Your task to perform on an android device: turn off smart reply in the gmail app Image 0: 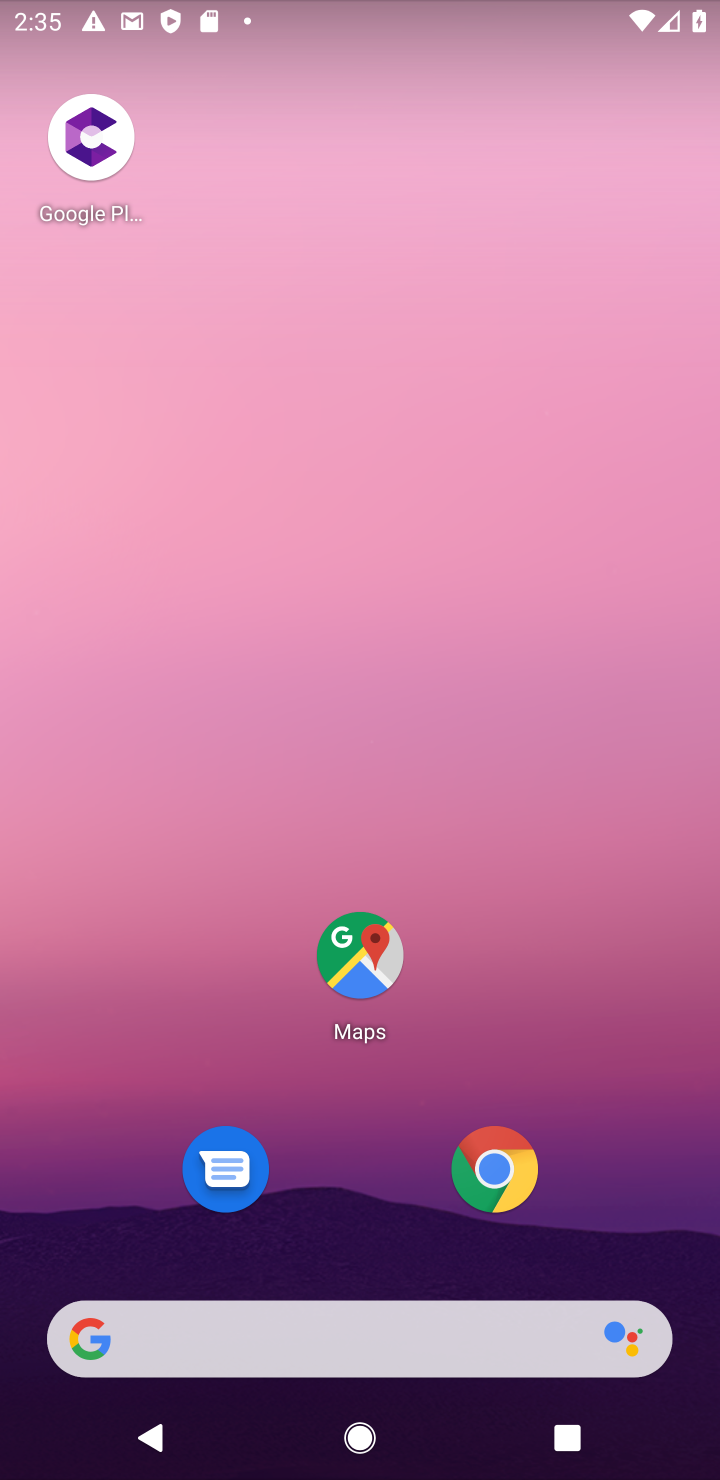
Step 0: drag from (416, 1232) to (524, 297)
Your task to perform on an android device: turn off smart reply in the gmail app Image 1: 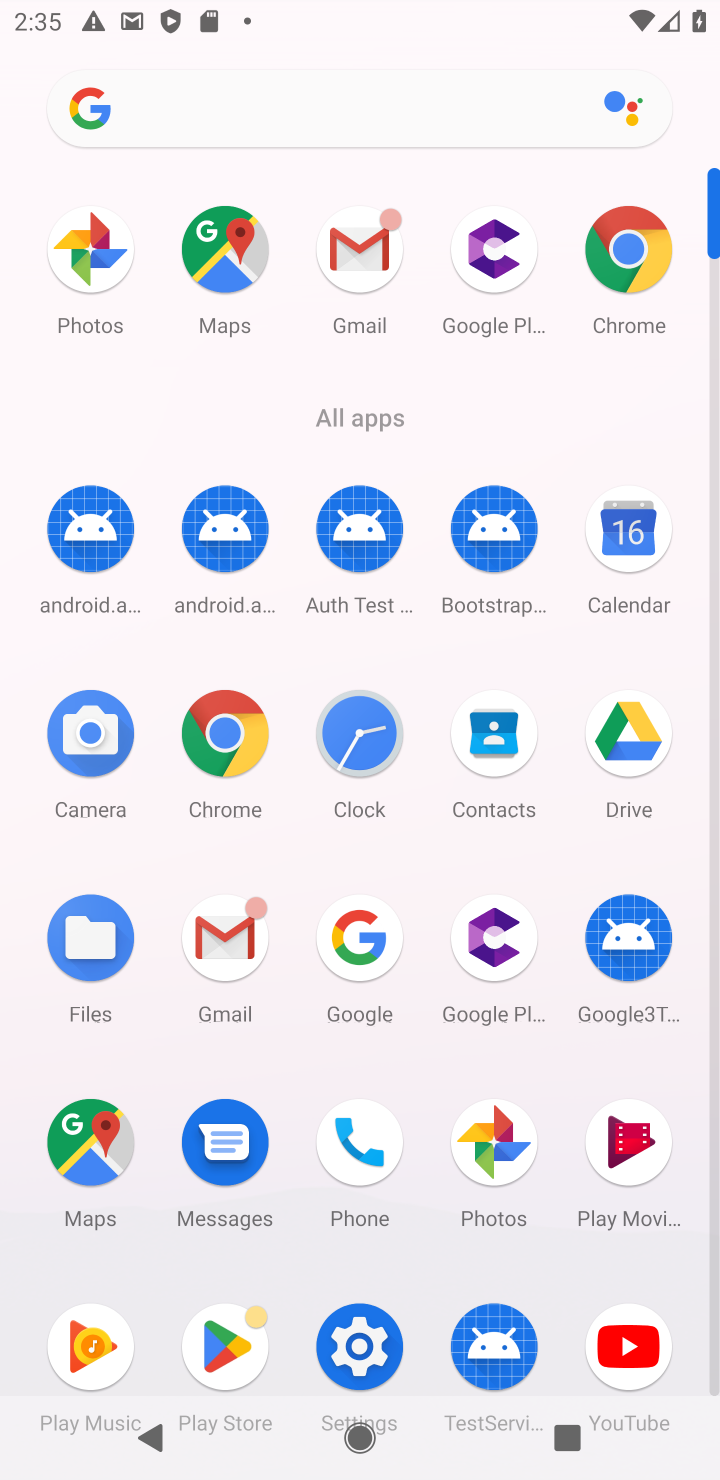
Step 1: click (371, 253)
Your task to perform on an android device: turn off smart reply in the gmail app Image 2: 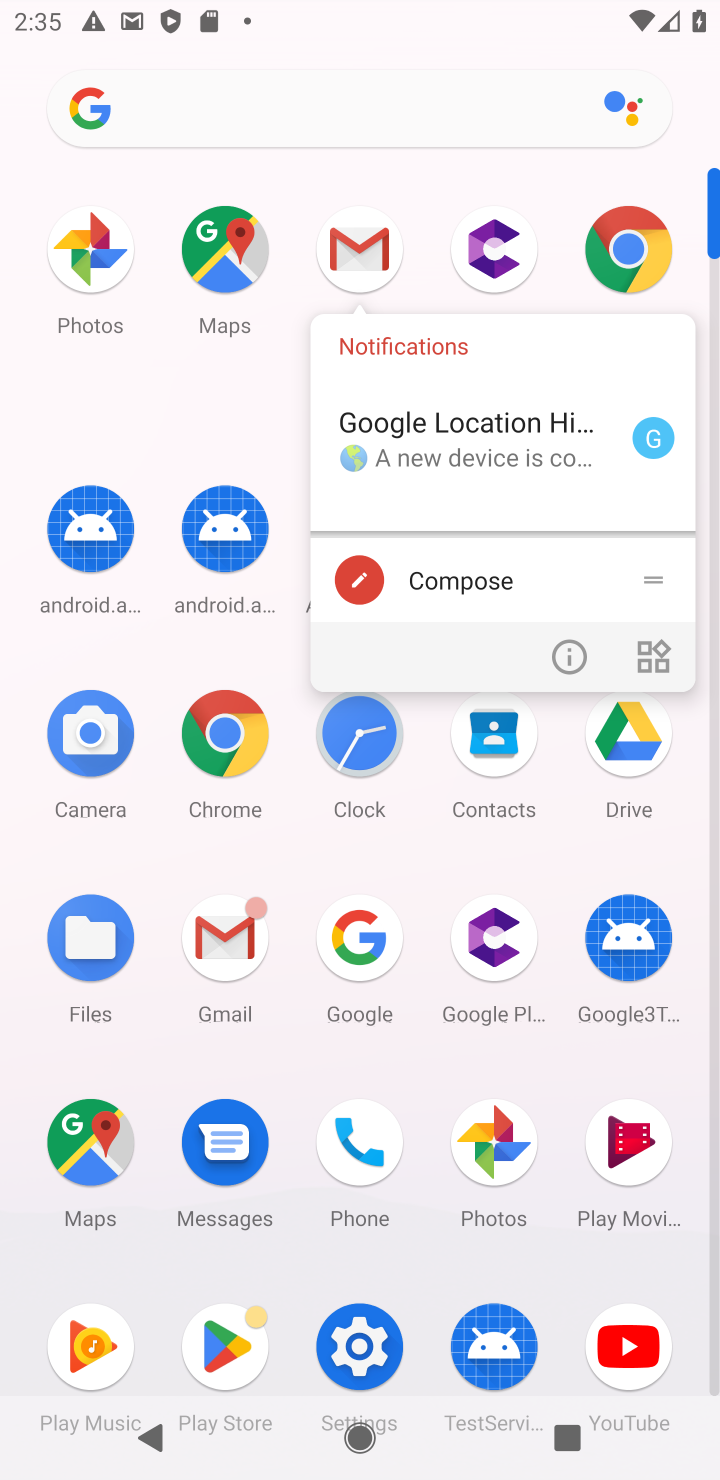
Step 2: click (371, 253)
Your task to perform on an android device: turn off smart reply in the gmail app Image 3: 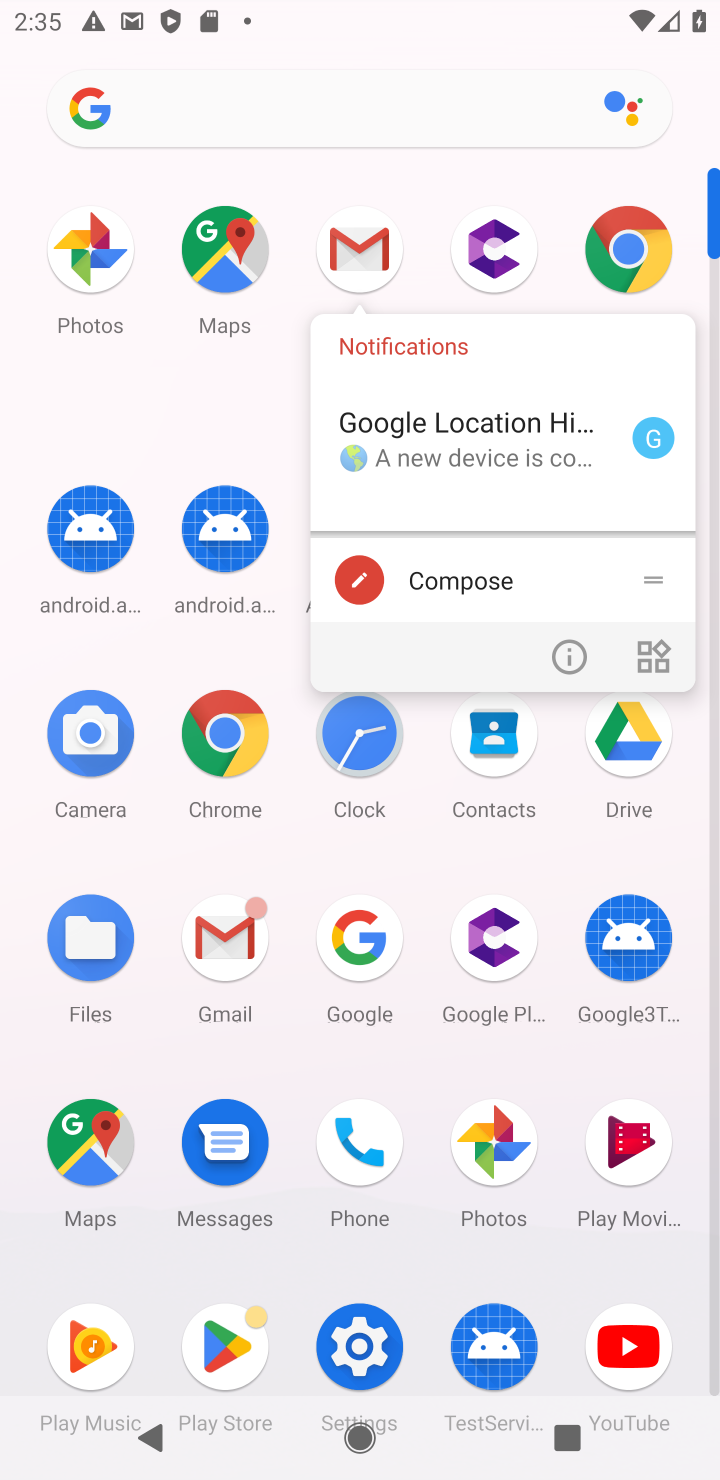
Step 3: click (371, 252)
Your task to perform on an android device: turn off smart reply in the gmail app Image 4: 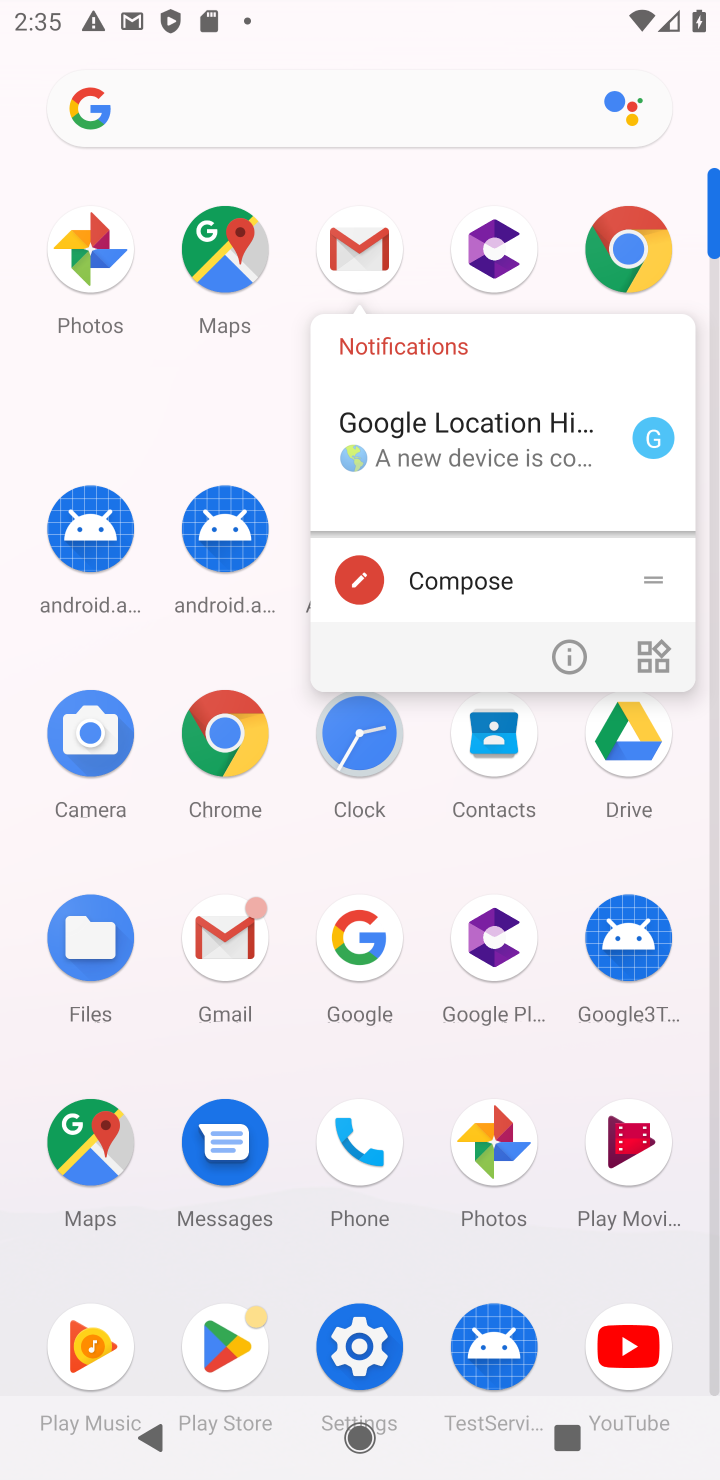
Step 4: click (371, 253)
Your task to perform on an android device: turn off smart reply in the gmail app Image 5: 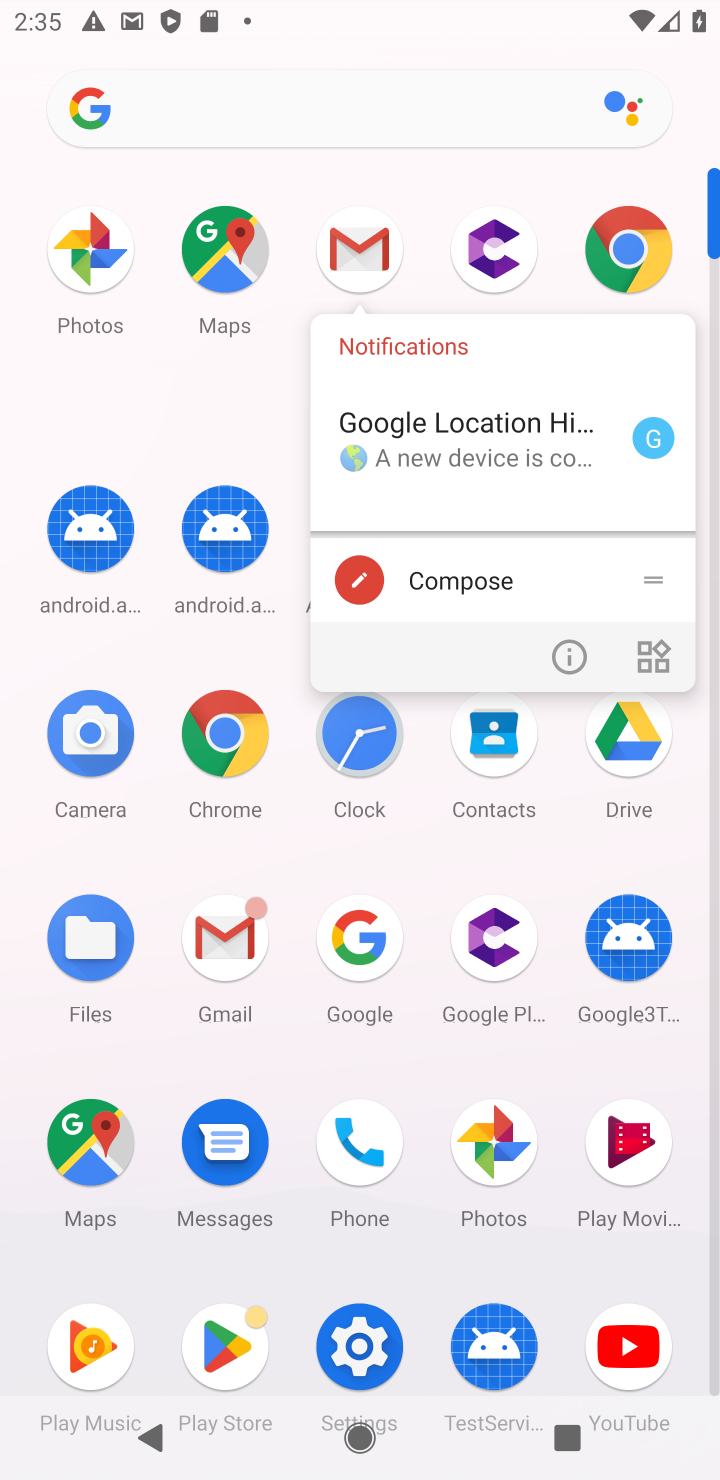
Step 5: click (360, 252)
Your task to perform on an android device: turn off smart reply in the gmail app Image 6: 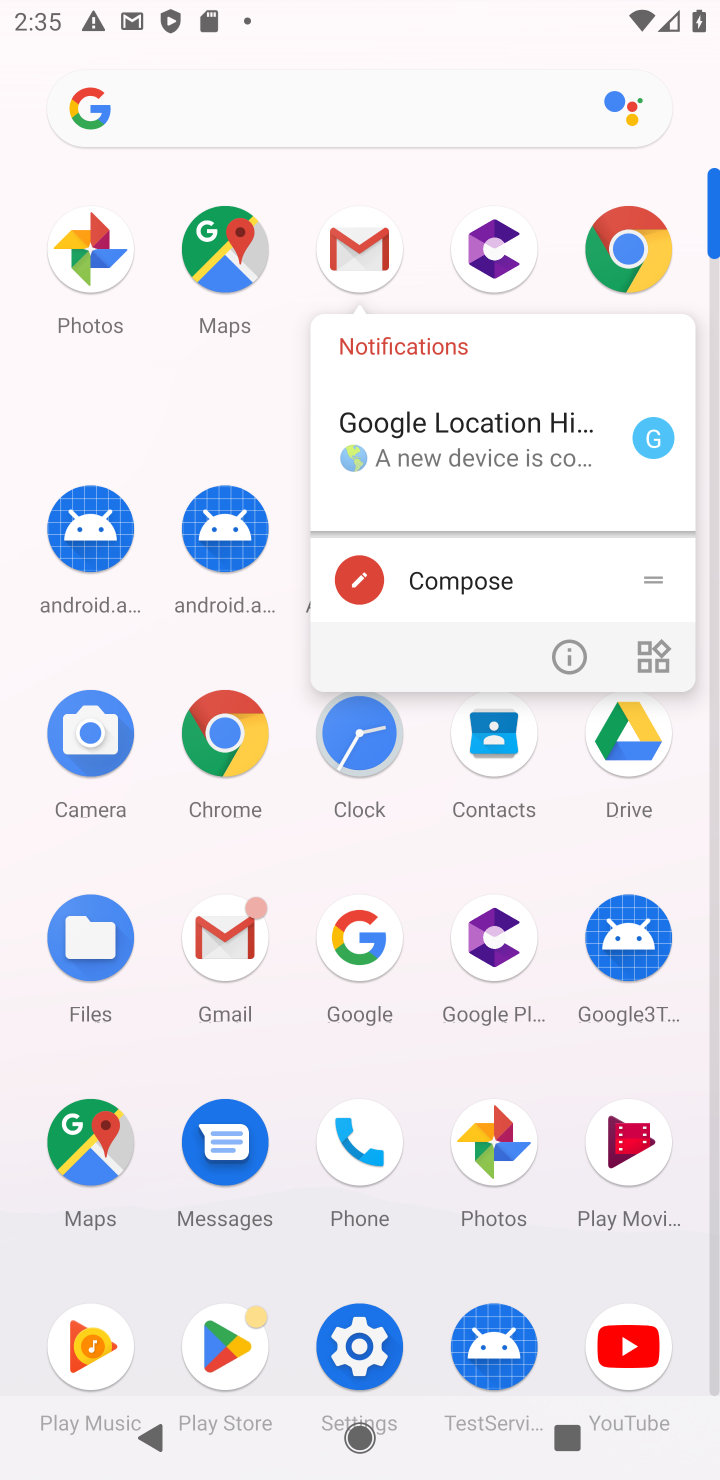
Step 6: click (360, 262)
Your task to perform on an android device: turn off smart reply in the gmail app Image 7: 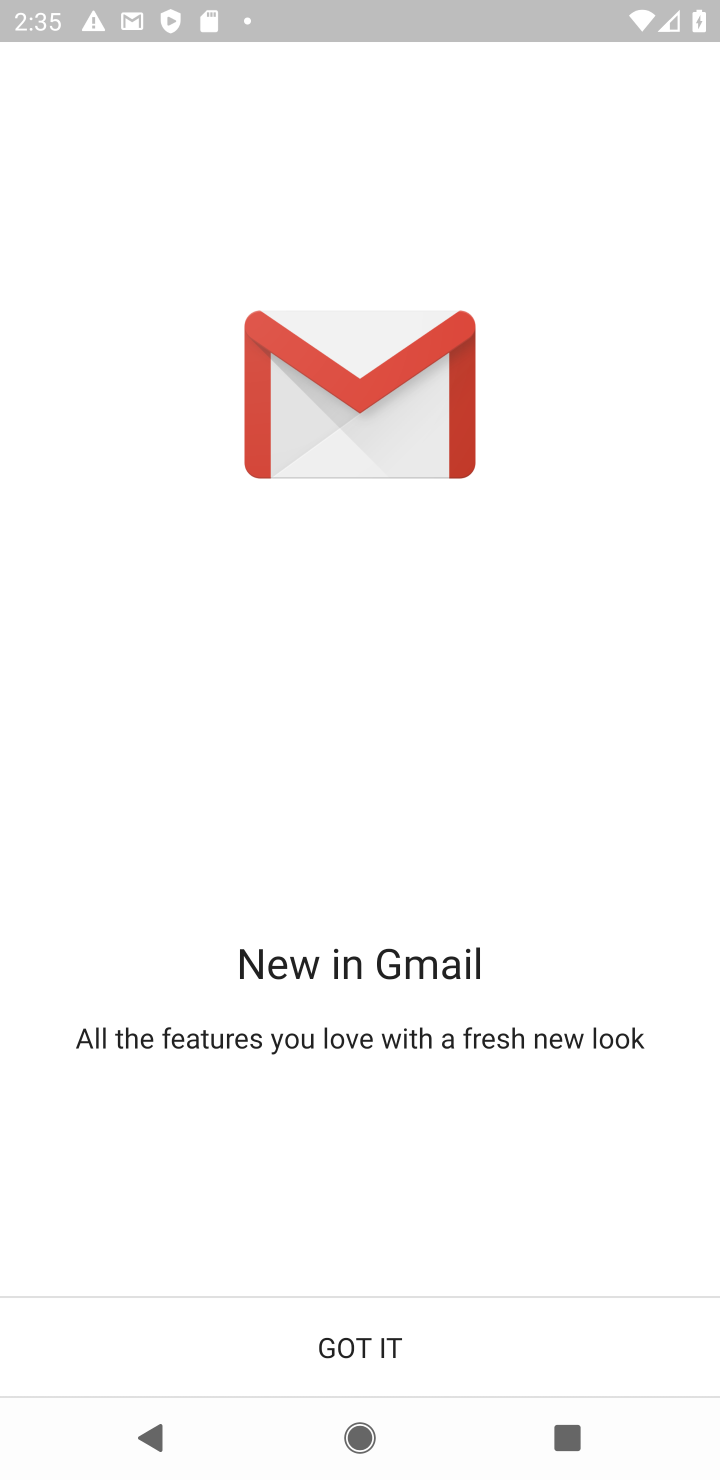
Step 7: click (395, 1339)
Your task to perform on an android device: turn off smart reply in the gmail app Image 8: 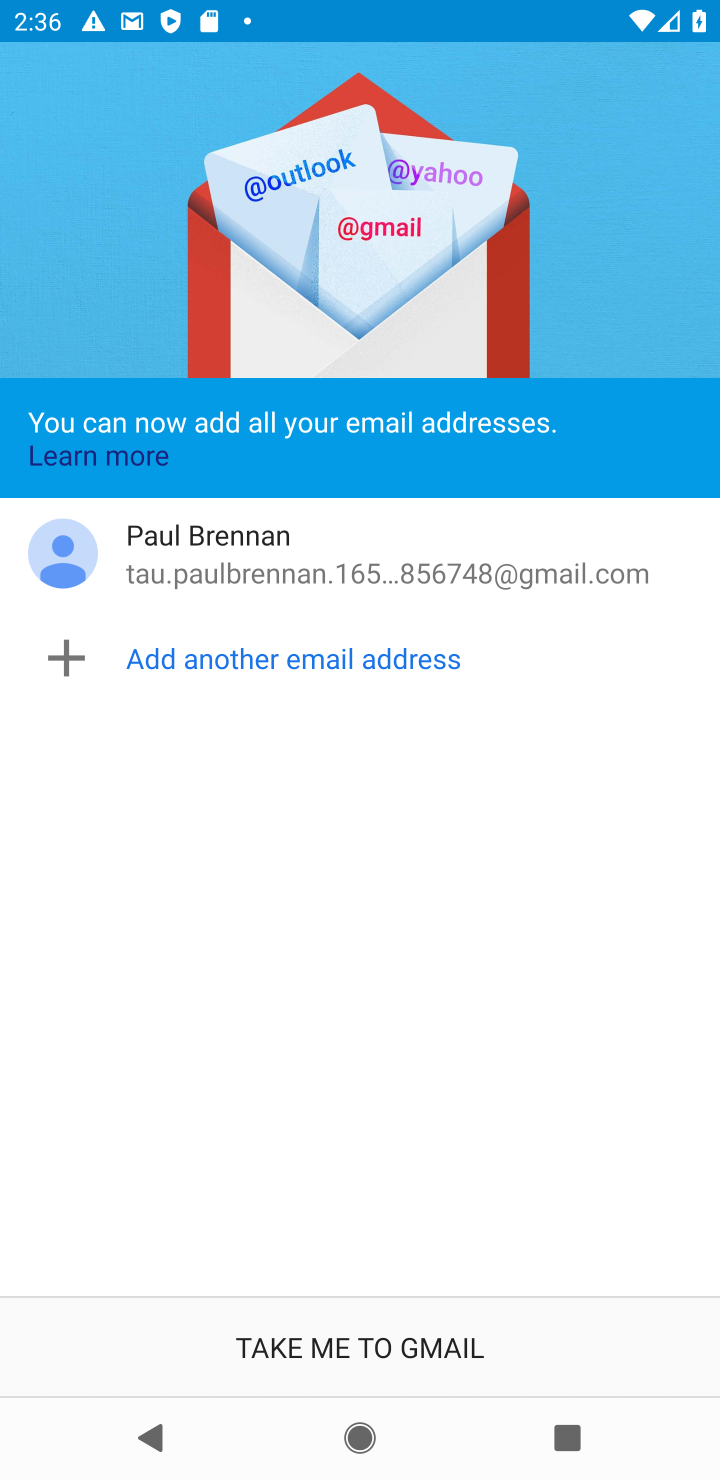
Step 8: click (388, 1352)
Your task to perform on an android device: turn off smart reply in the gmail app Image 9: 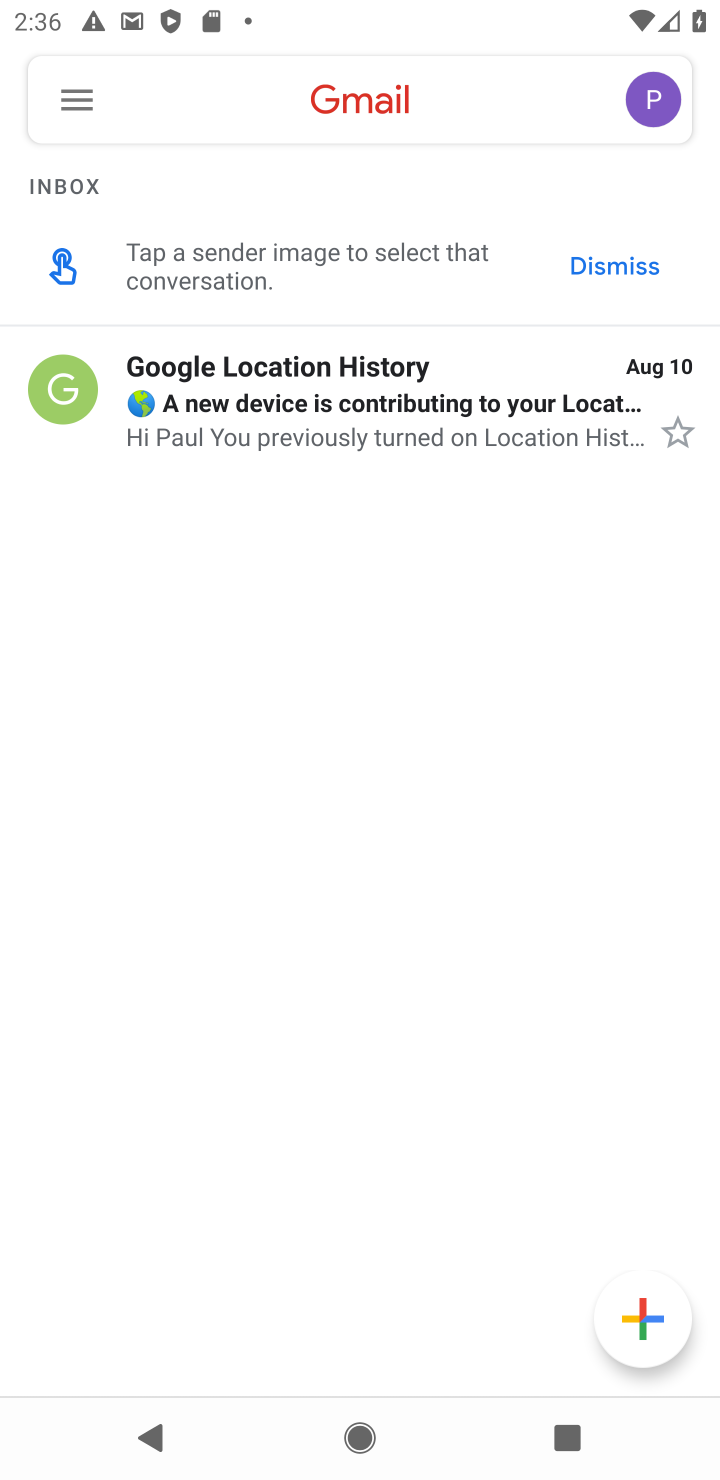
Step 9: click (78, 94)
Your task to perform on an android device: turn off smart reply in the gmail app Image 10: 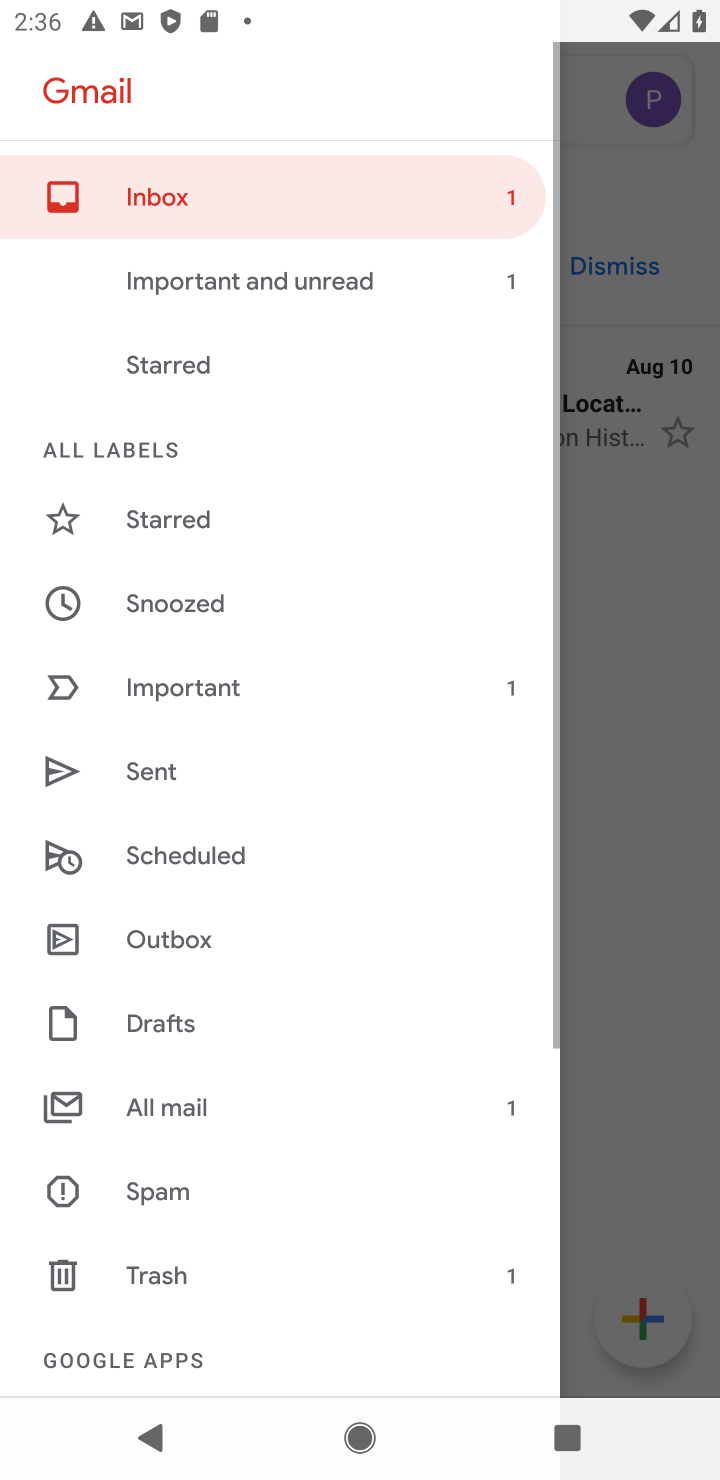
Step 10: drag from (289, 1286) to (397, 354)
Your task to perform on an android device: turn off smart reply in the gmail app Image 11: 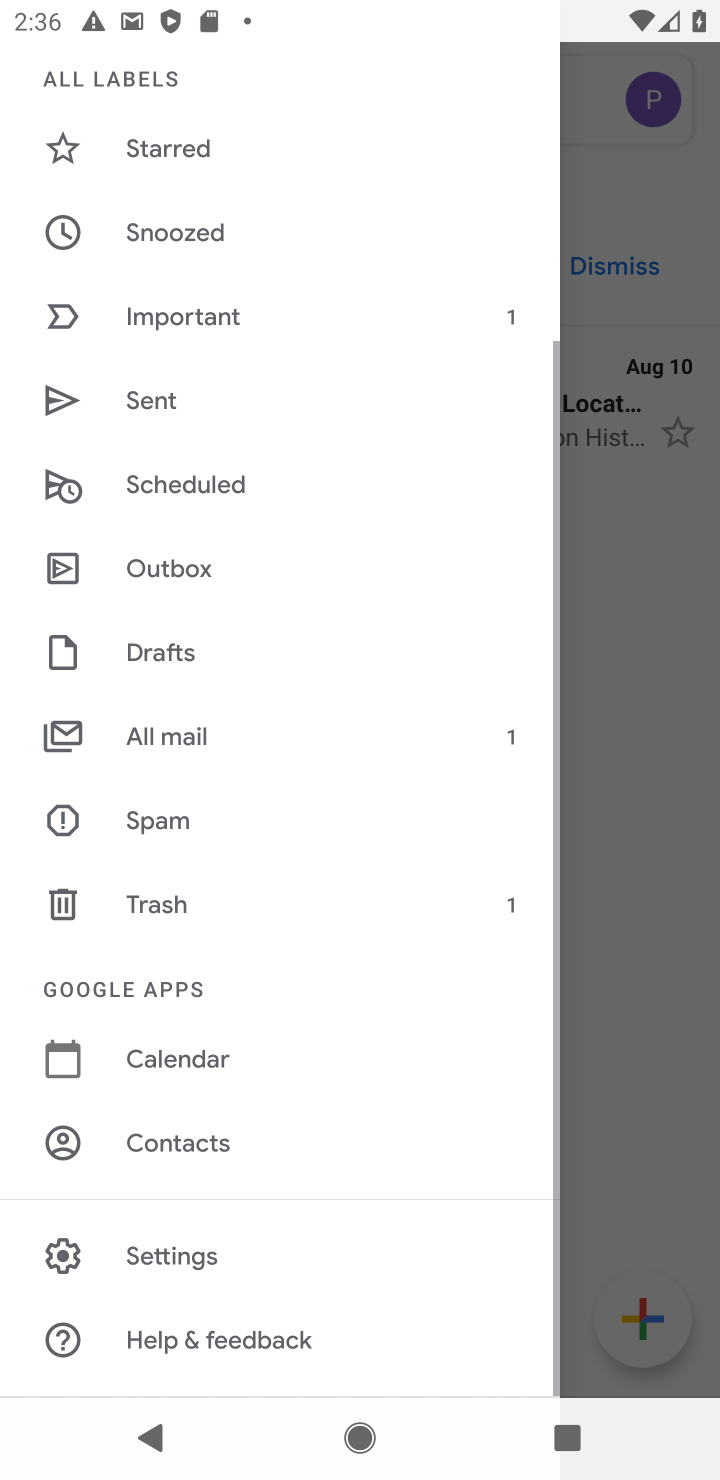
Step 11: click (187, 1260)
Your task to perform on an android device: turn off smart reply in the gmail app Image 12: 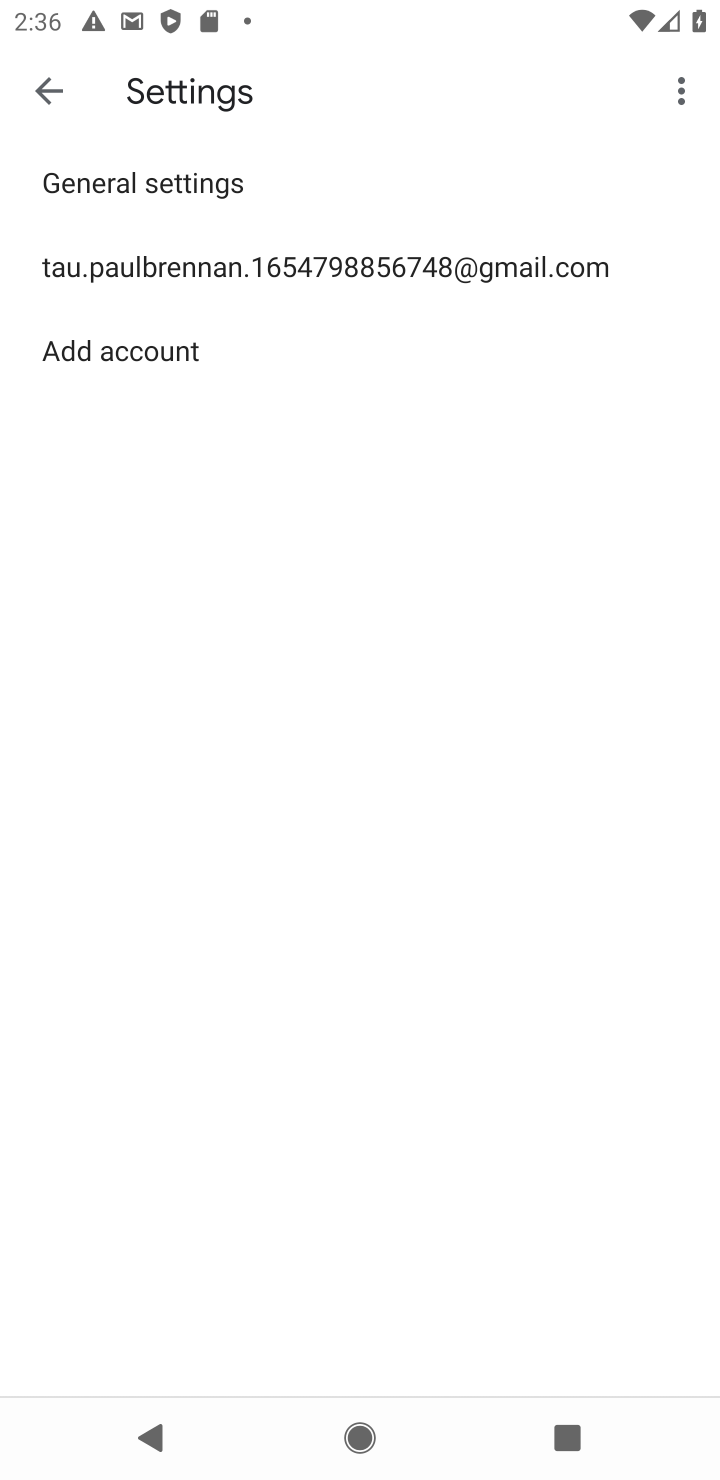
Step 12: click (379, 238)
Your task to perform on an android device: turn off smart reply in the gmail app Image 13: 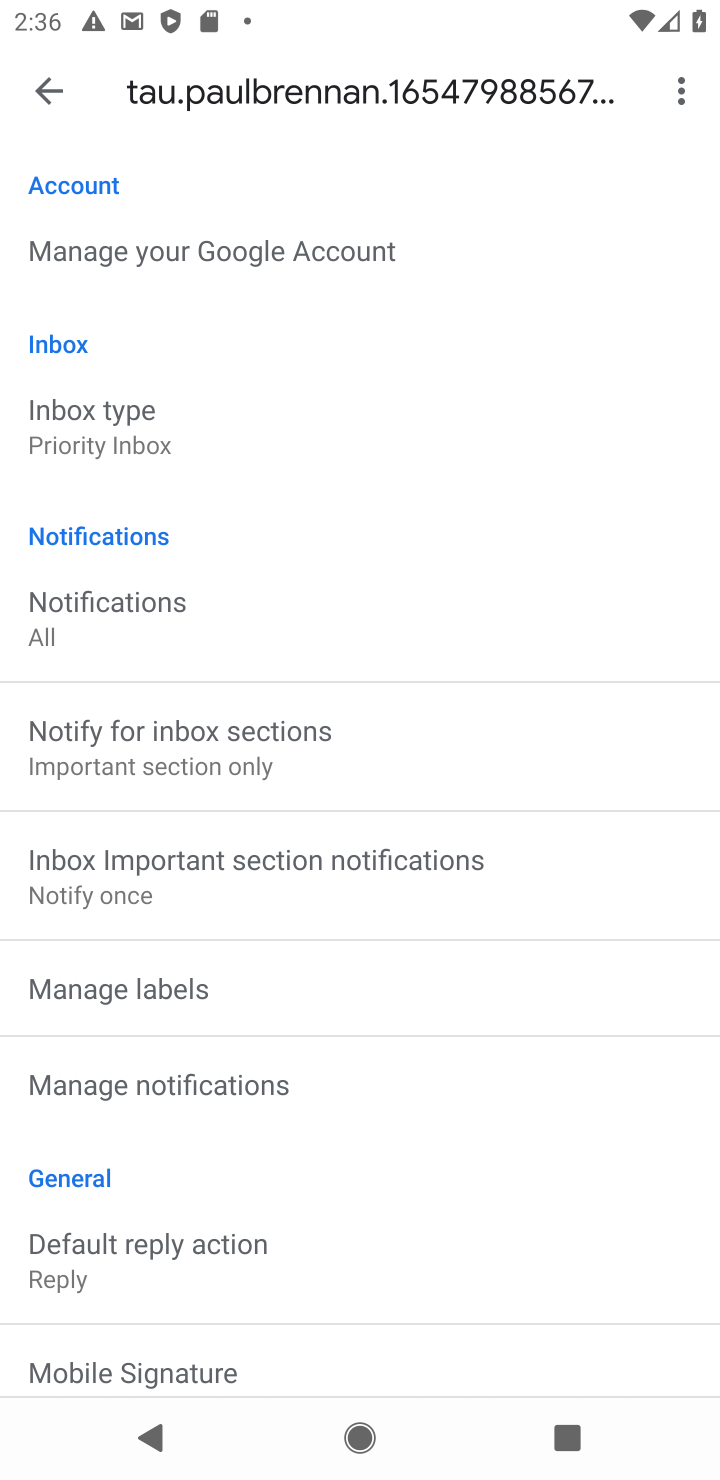
Step 13: drag from (433, 1166) to (625, 304)
Your task to perform on an android device: turn off smart reply in the gmail app Image 14: 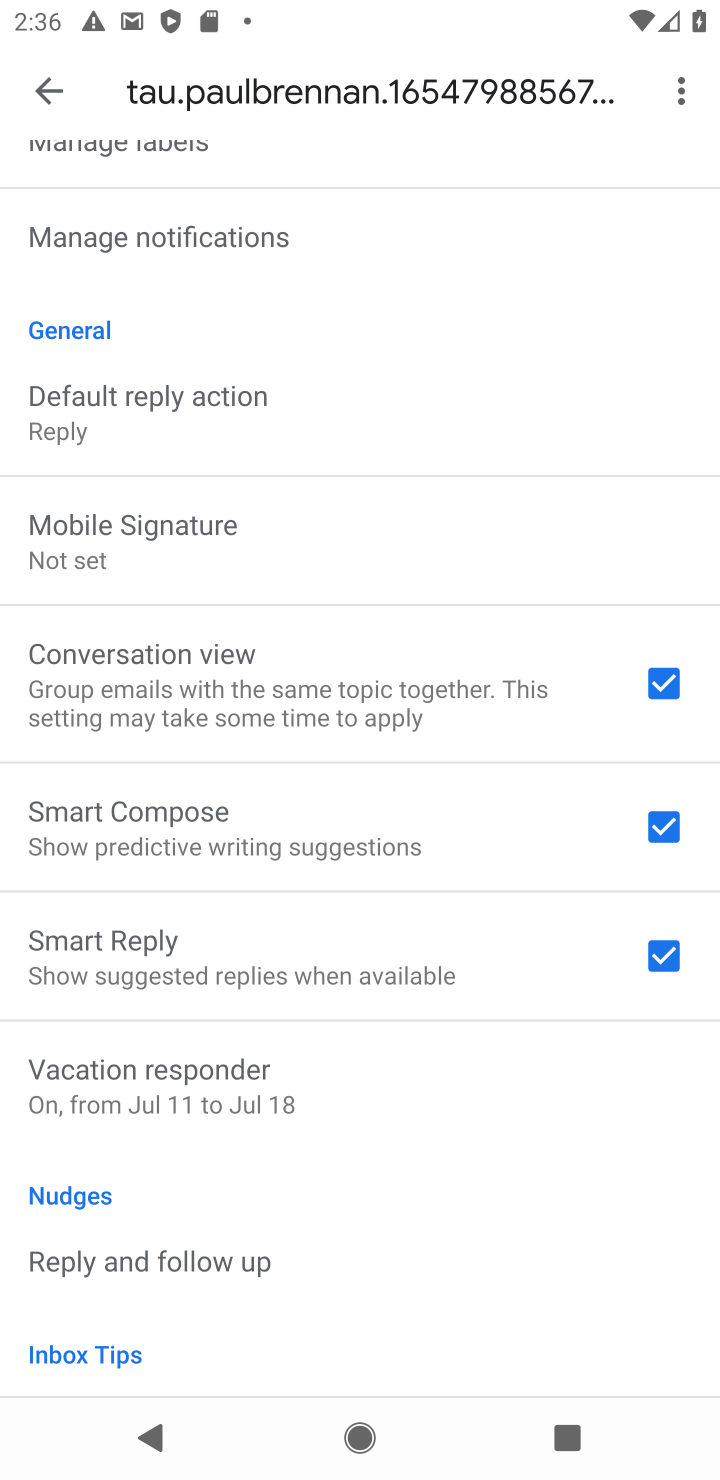
Step 14: click (662, 957)
Your task to perform on an android device: turn off smart reply in the gmail app Image 15: 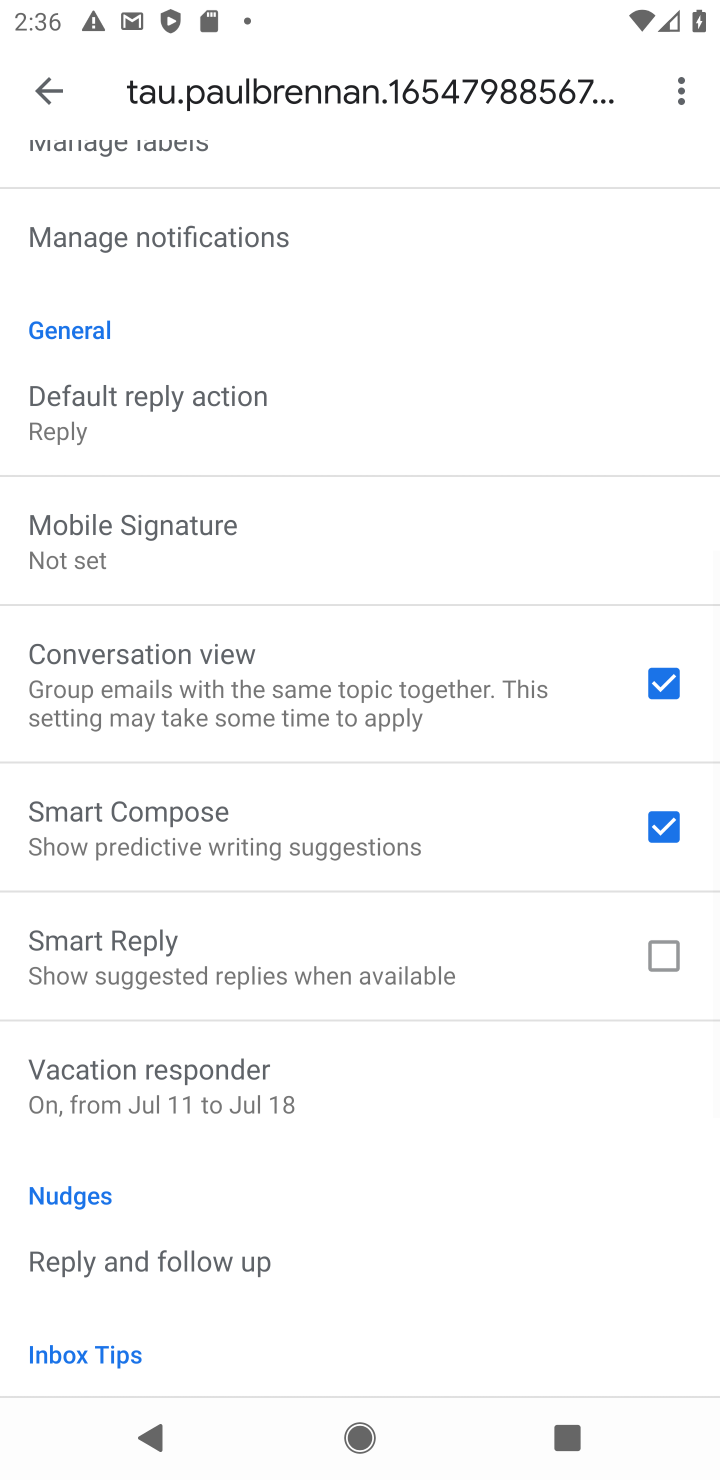
Step 15: task complete